Your task to perform on an android device: open chrome and create a bookmark for the current page Image 0: 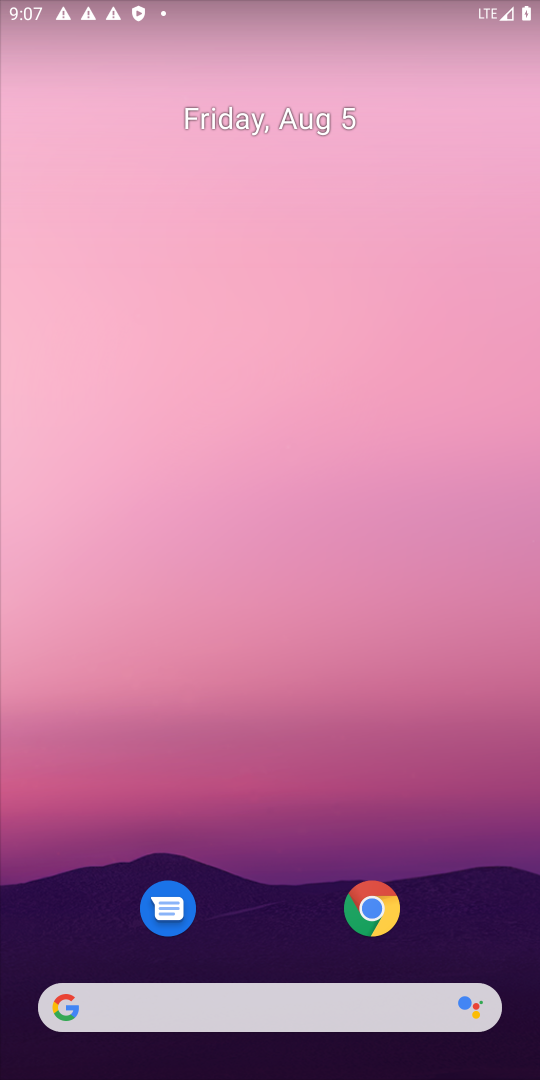
Step 0: click (371, 918)
Your task to perform on an android device: open chrome and create a bookmark for the current page Image 1: 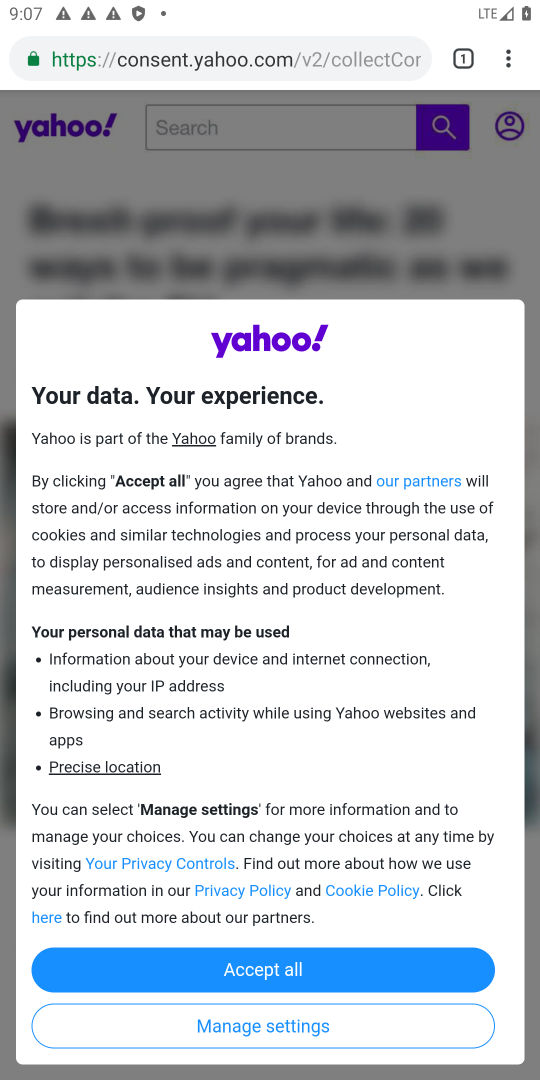
Step 1: click (517, 70)
Your task to perform on an android device: open chrome and create a bookmark for the current page Image 2: 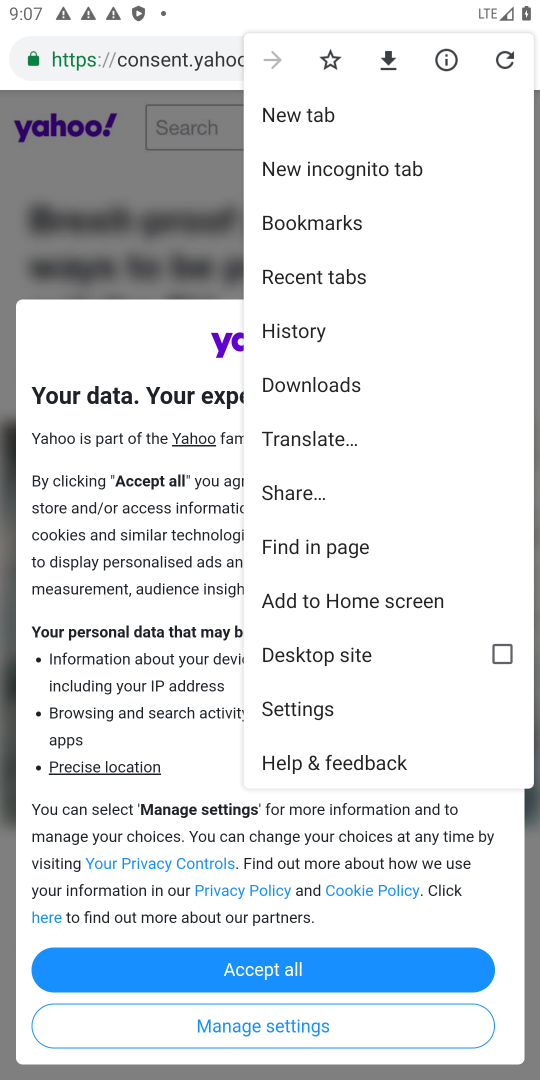
Step 2: click (335, 57)
Your task to perform on an android device: open chrome and create a bookmark for the current page Image 3: 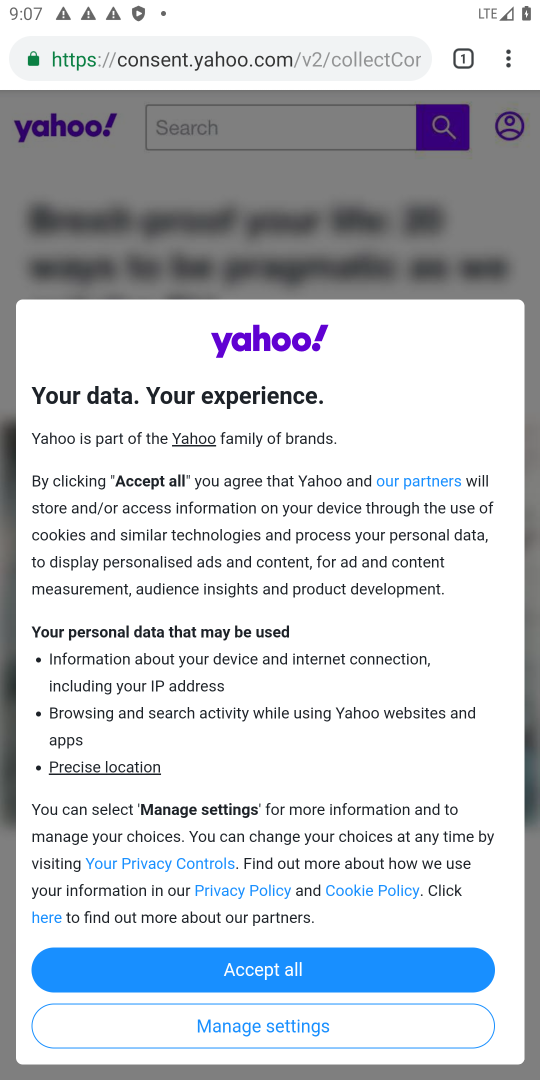
Step 3: task complete